Your task to perform on an android device: Search for sushi restaurants on Maps Image 0: 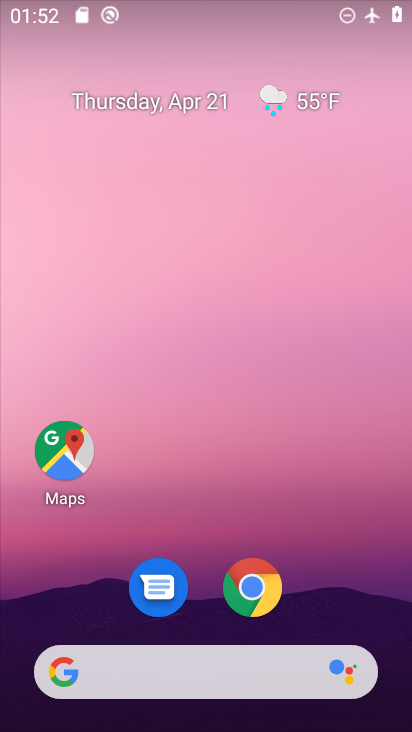
Step 0: click (59, 451)
Your task to perform on an android device: Search for sushi restaurants on Maps Image 1: 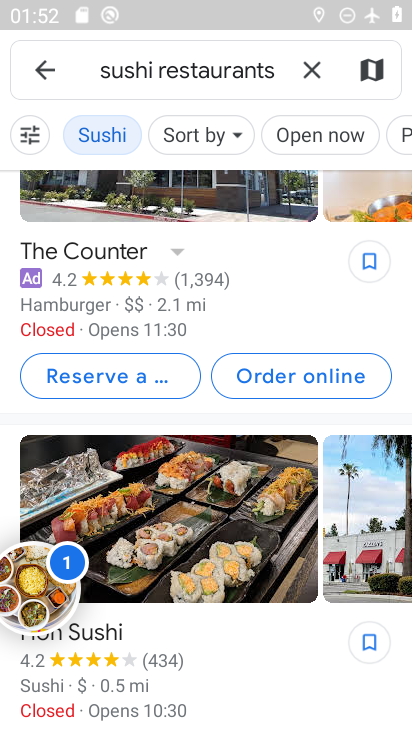
Step 1: drag from (277, 285) to (231, 467)
Your task to perform on an android device: Search for sushi restaurants on Maps Image 2: 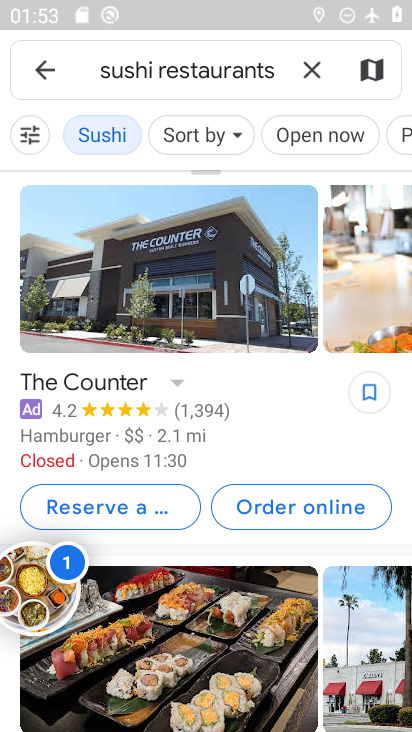
Step 2: drag from (250, 247) to (204, 488)
Your task to perform on an android device: Search for sushi restaurants on Maps Image 3: 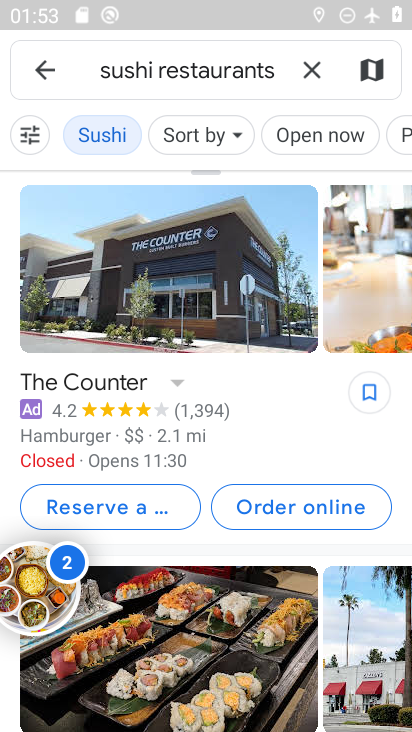
Step 3: click (192, 526)
Your task to perform on an android device: Search for sushi restaurants on Maps Image 4: 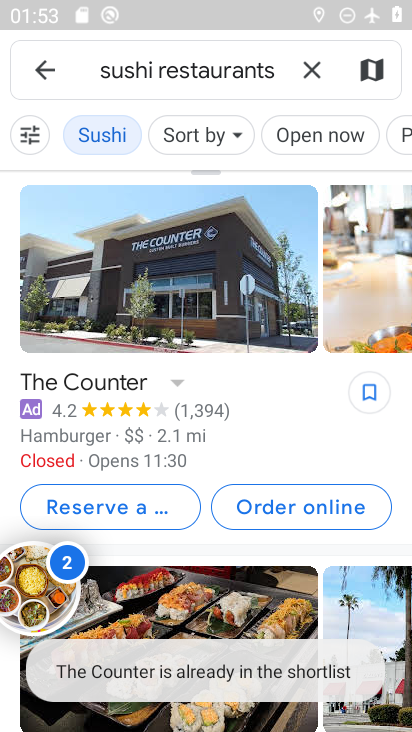
Step 4: task complete